Your task to perform on an android device: Open calendar and show me the fourth week of next month Image 0: 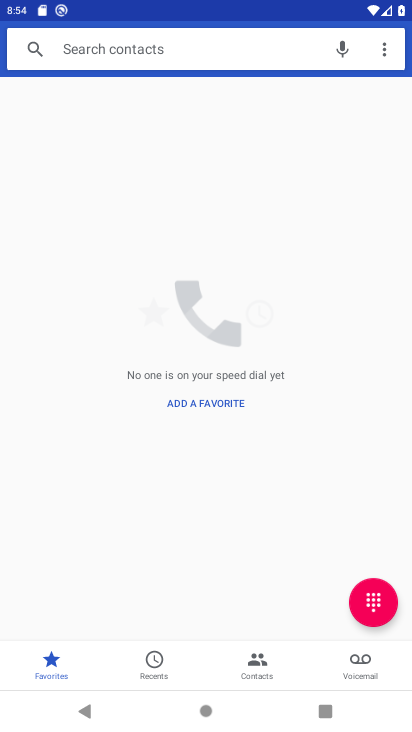
Step 0: press home button
Your task to perform on an android device: Open calendar and show me the fourth week of next month Image 1: 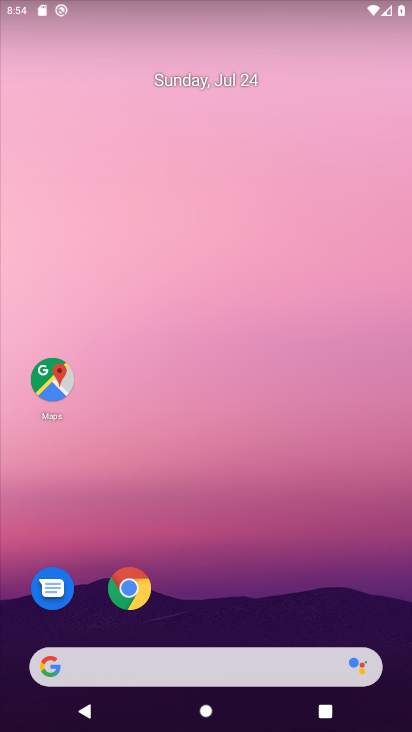
Step 1: drag from (401, 534) to (310, 34)
Your task to perform on an android device: Open calendar and show me the fourth week of next month Image 2: 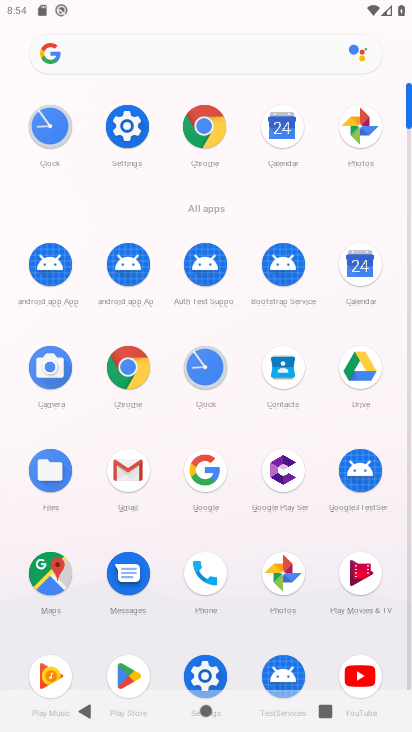
Step 2: click (353, 266)
Your task to perform on an android device: Open calendar and show me the fourth week of next month Image 3: 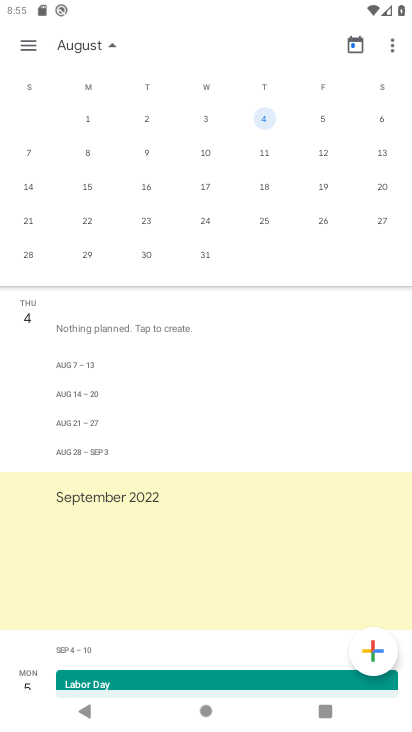
Step 3: click (260, 184)
Your task to perform on an android device: Open calendar and show me the fourth week of next month Image 4: 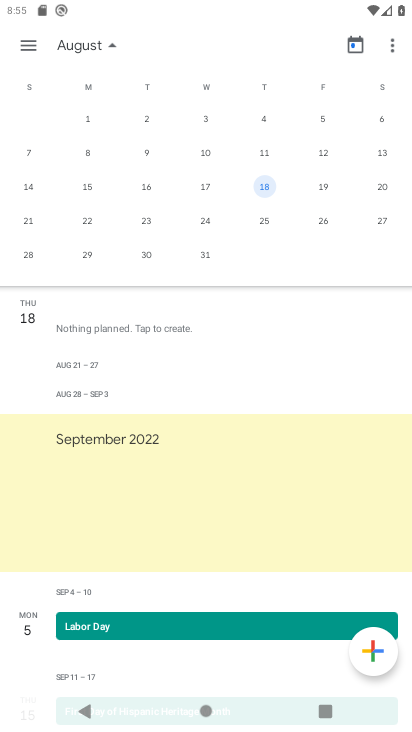
Step 4: click (260, 210)
Your task to perform on an android device: Open calendar and show me the fourth week of next month Image 5: 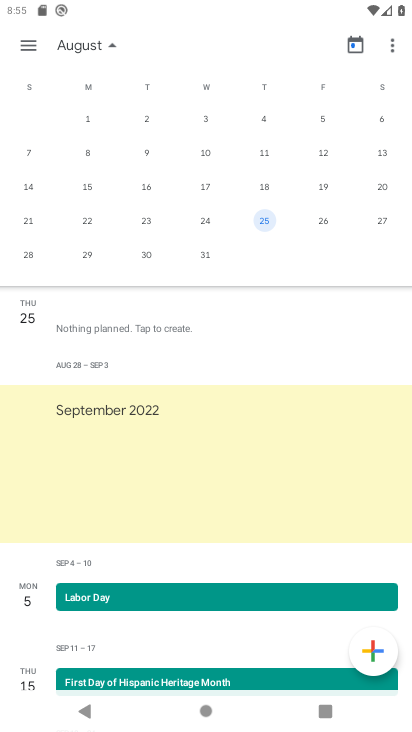
Step 5: task complete